Your task to perform on an android device: open app "PlayWell" Image 0: 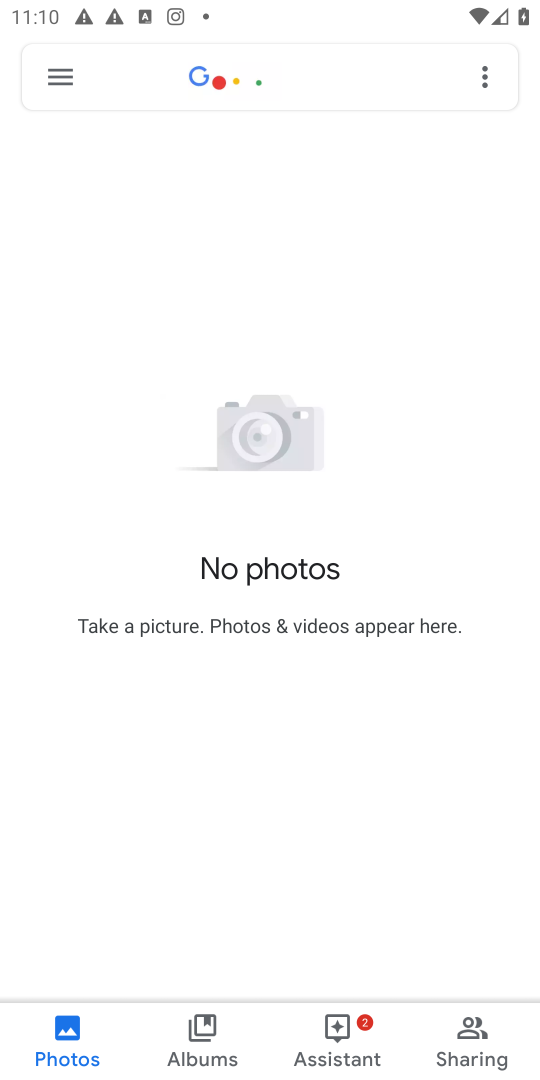
Step 0: press home button
Your task to perform on an android device: open app "PlayWell" Image 1: 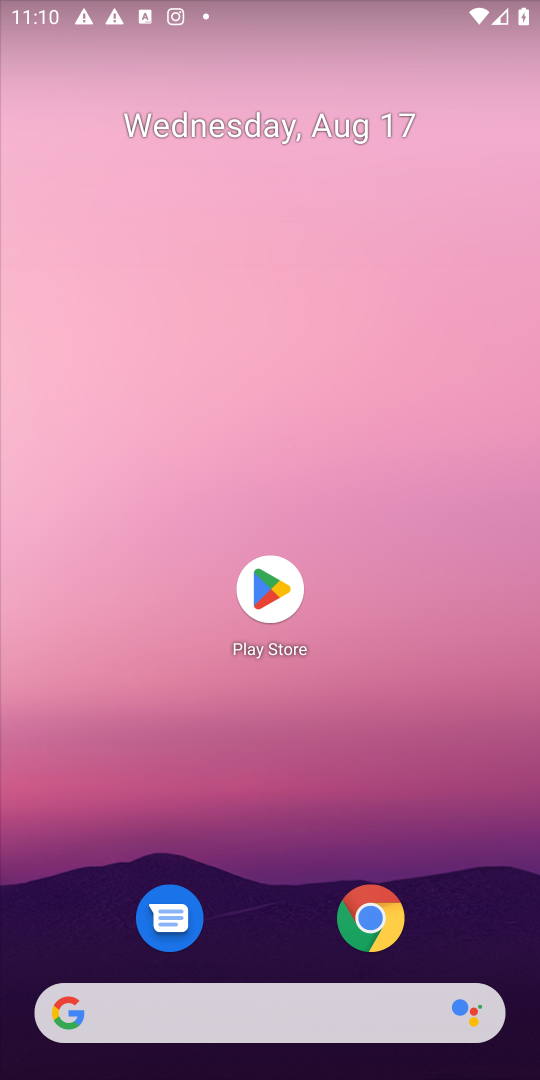
Step 1: click (266, 575)
Your task to perform on an android device: open app "PlayWell" Image 2: 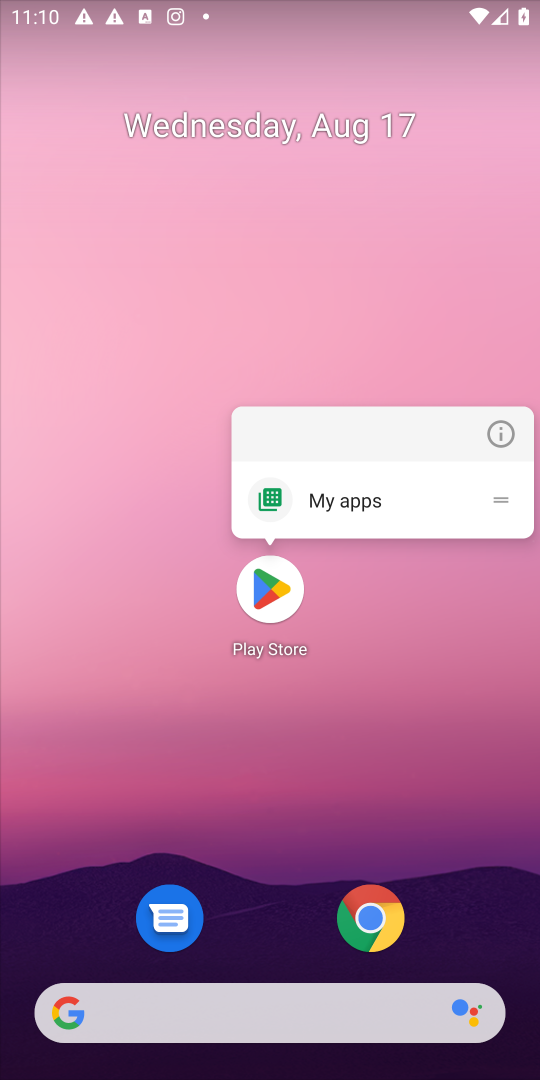
Step 2: click (271, 586)
Your task to perform on an android device: open app "PlayWell" Image 3: 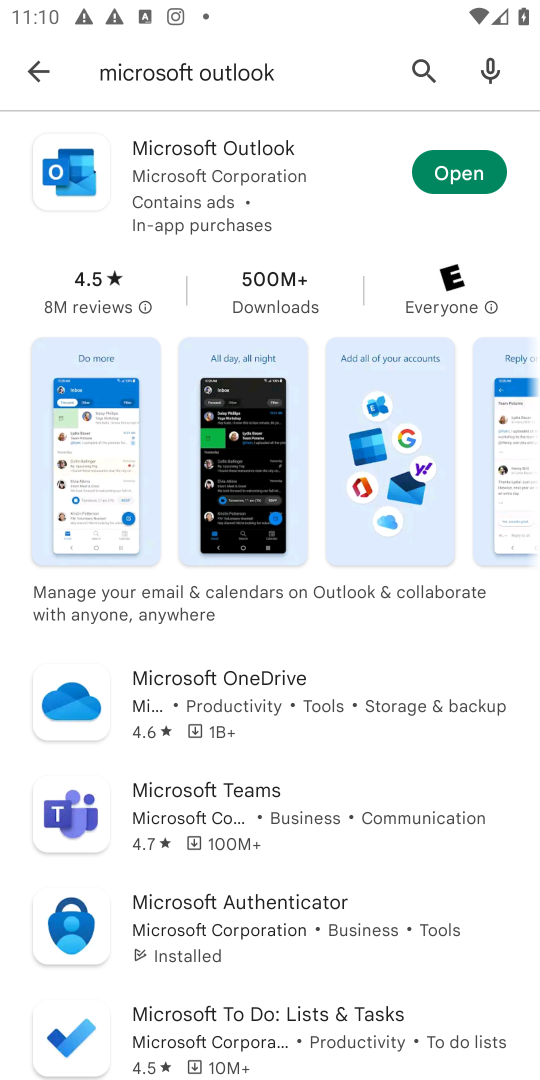
Step 3: click (420, 64)
Your task to perform on an android device: open app "PlayWell" Image 4: 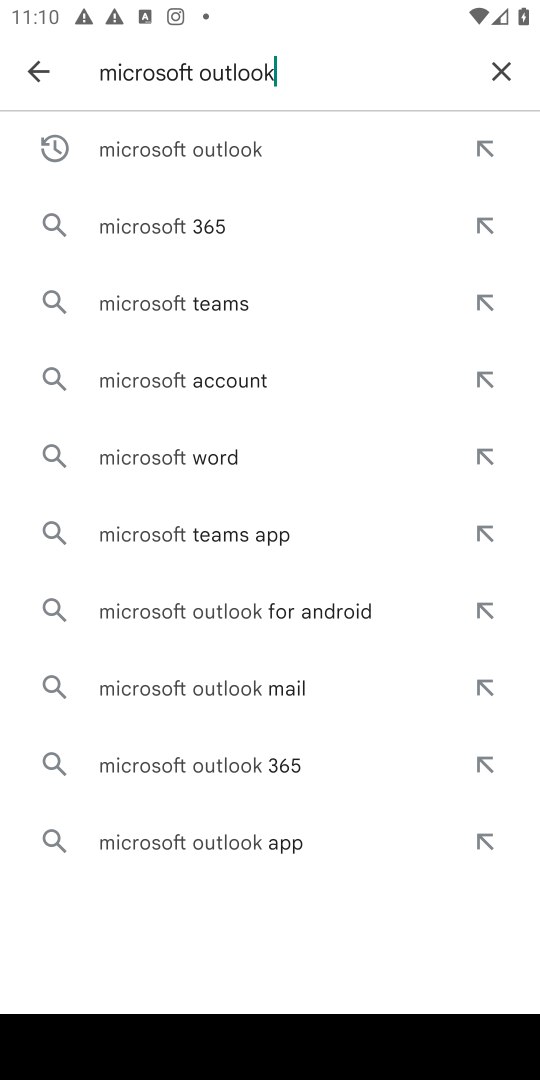
Step 4: click (502, 67)
Your task to perform on an android device: open app "PlayWell" Image 5: 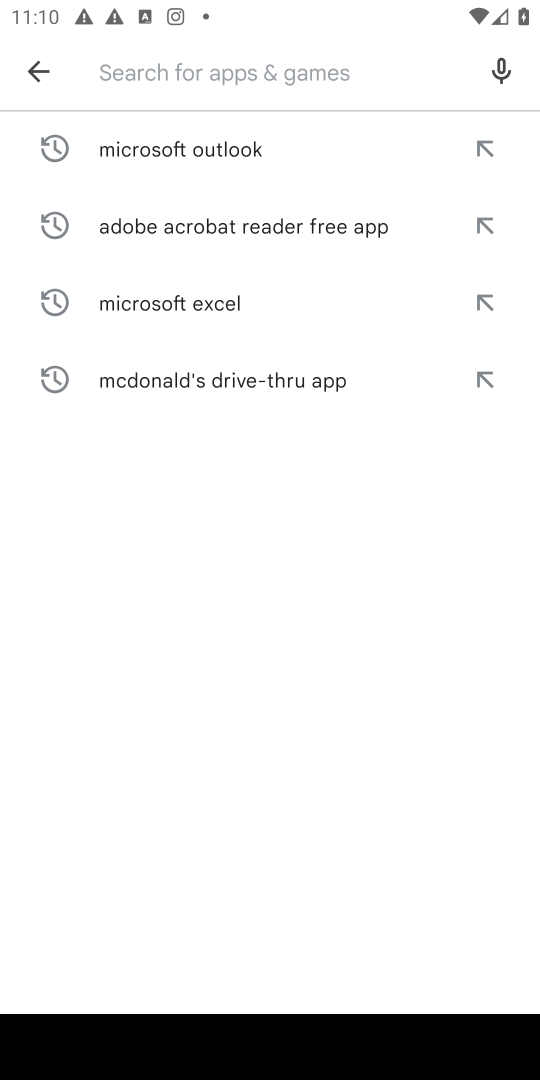
Step 5: type "PlayWell"
Your task to perform on an android device: open app "PlayWell" Image 6: 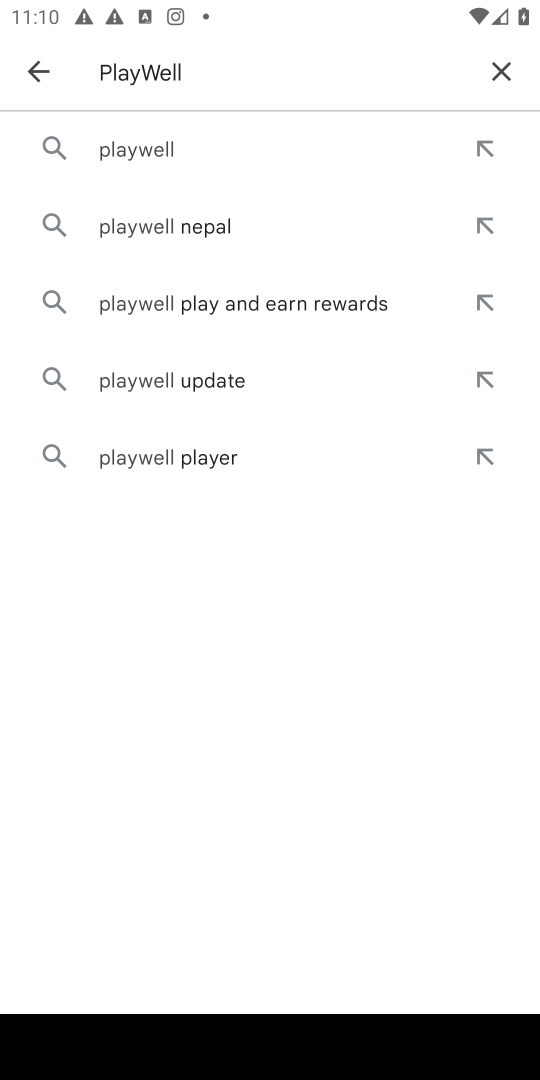
Step 6: click (122, 159)
Your task to perform on an android device: open app "PlayWell" Image 7: 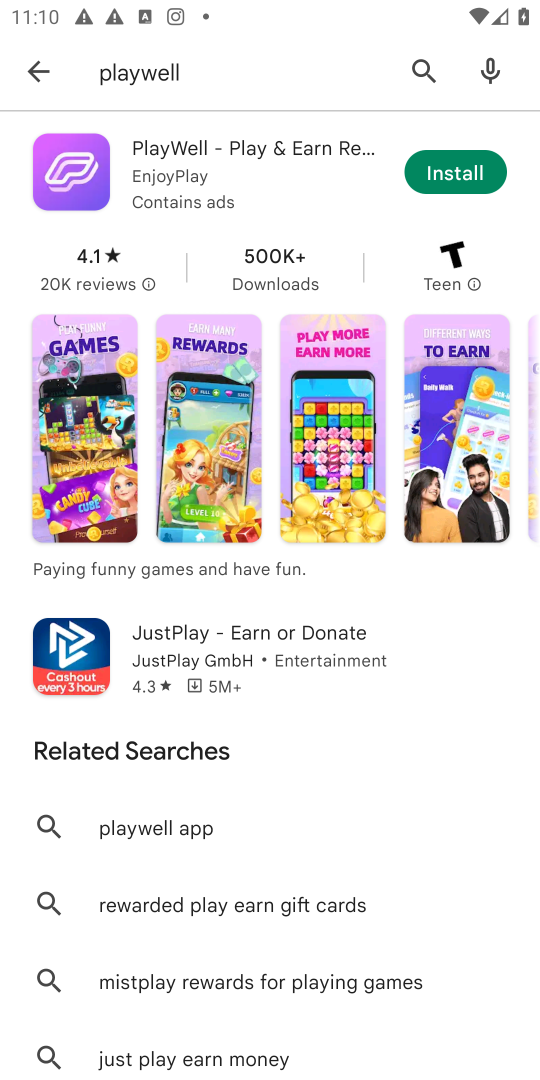
Step 7: task complete